Your task to perform on an android device: add a contact Image 0: 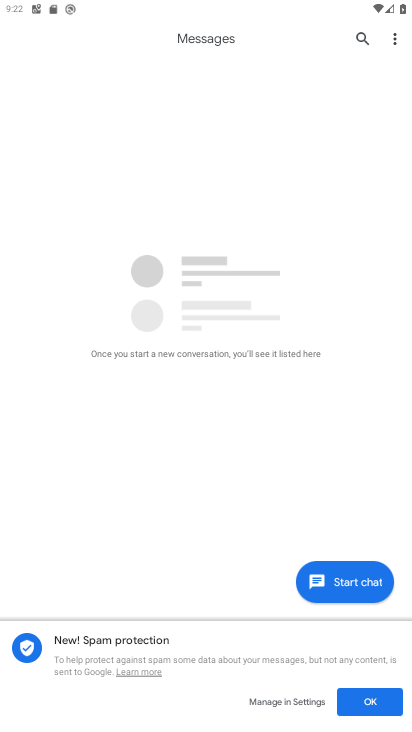
Step 0: press home button
Your task to perform on an android device: add a contact Image 1: 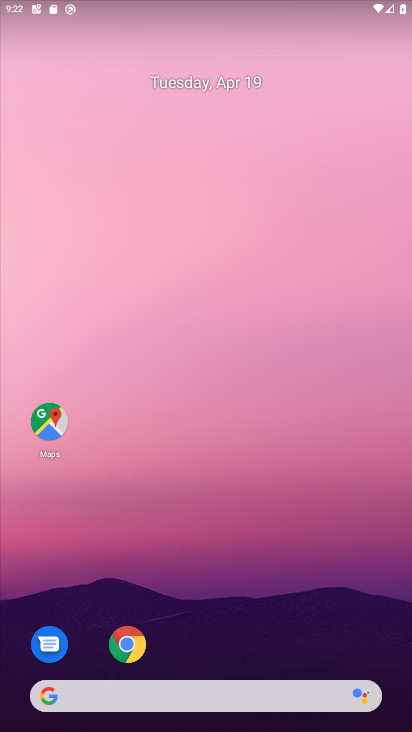
Step 1: drag from (263, 516) to (210, 62)
Your task to perform on an android device: add a contact Image 2: 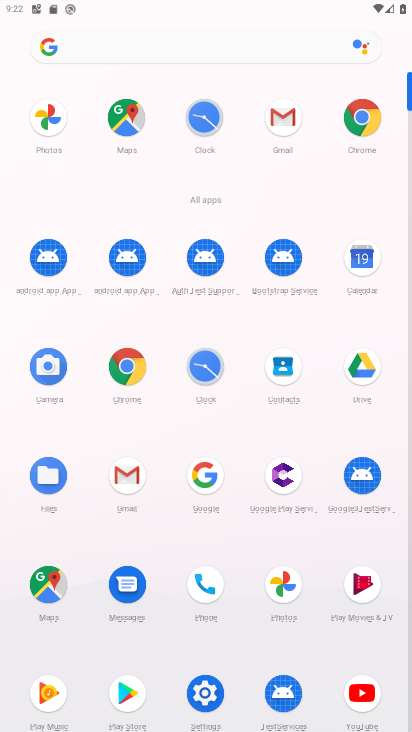
Step 2: click (285, 371)
Your task to perform on an android device: add a contact Image 3: 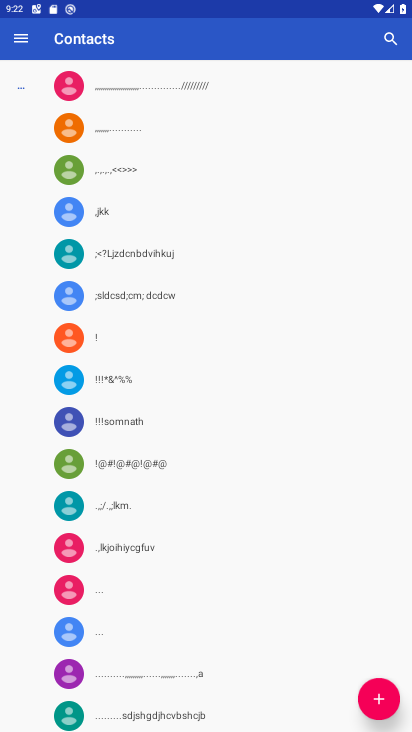
Step 3: click (371, 701)
Your task to perform on an android device: add a contact Image 4: 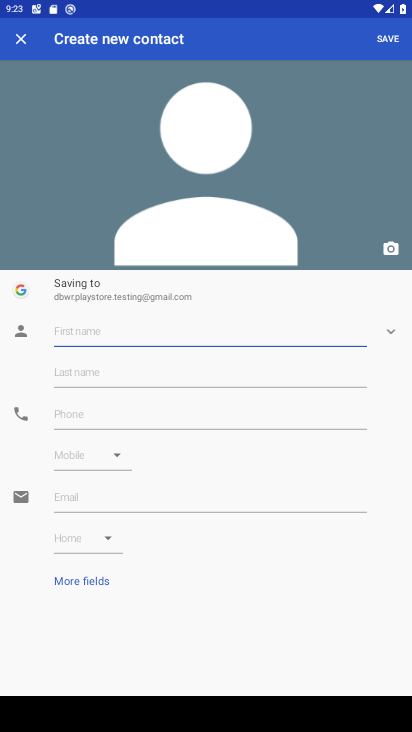
Step 4: type "mavdhi"
Your task to perform on an android device: add a contact Image 5: 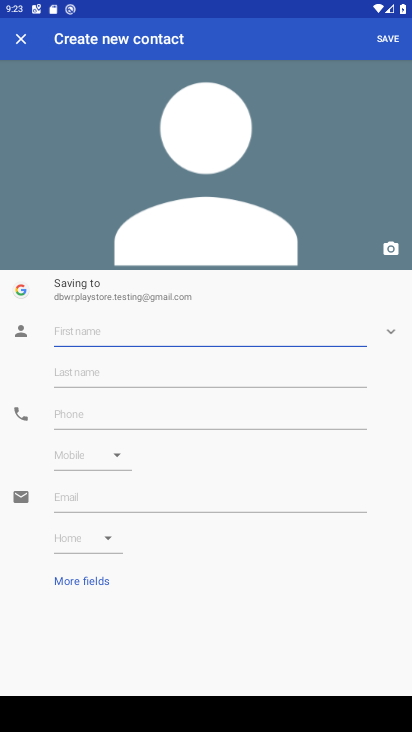
Step 5: click (383, 20)
Your task to perform on an android device: add a contact Image 6: 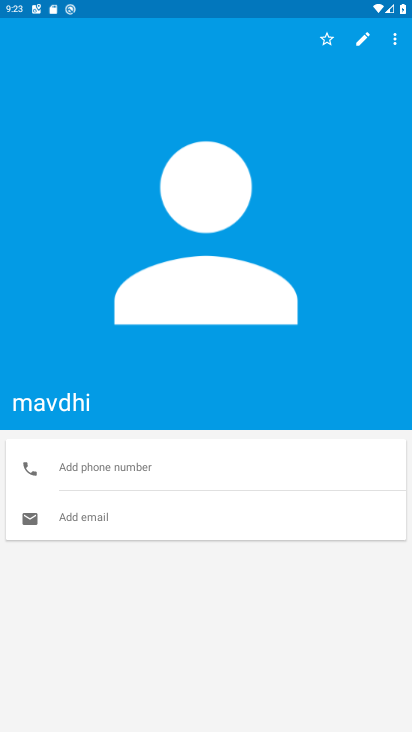
Step 6: task complete